Your task to perform on an android device: Open CNN.com Image 0: 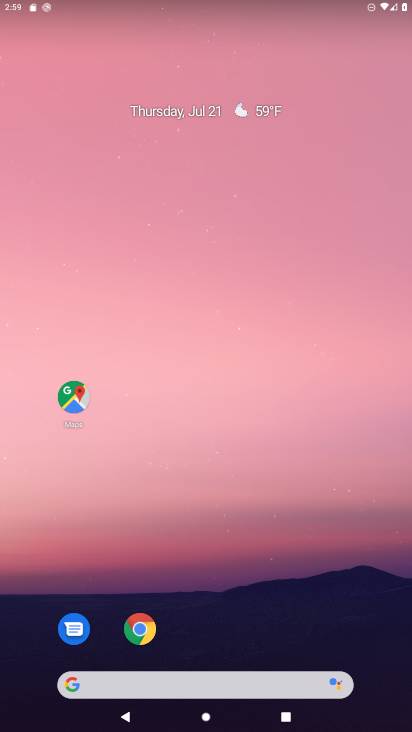
Step 0: click (139, 627)
Your task to perform on an android device: Open CNN.com Image 1: 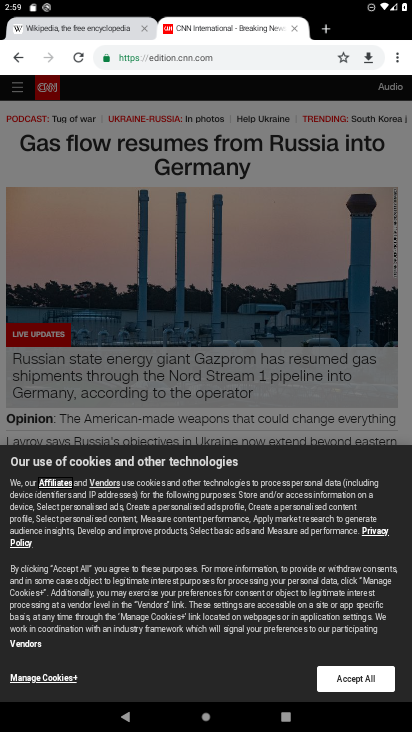
Step 1: task complete